Your task to perform on an android device: open device folders in google photos Image 0: 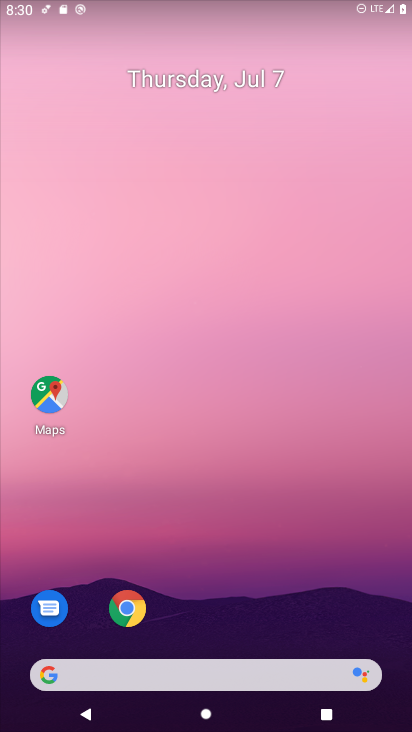
Step 0: drag from (349, 620) to (319, 168)
Your task to perform on an android device: open device folders in google photos Image 1: 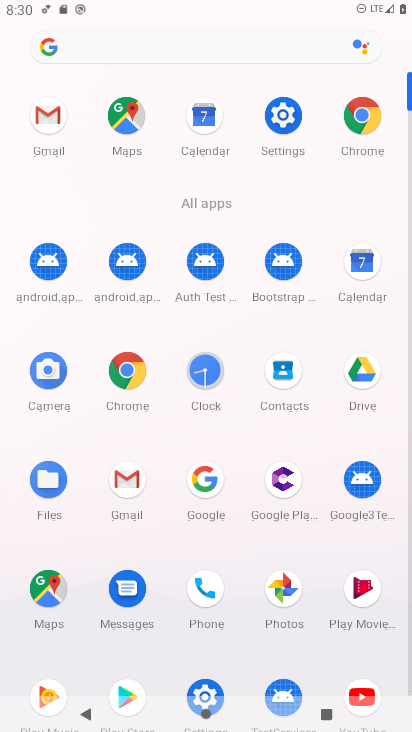
Step 1: click (283, 584)
Your task to perform on an android device: open device folders in google photos Image 2: 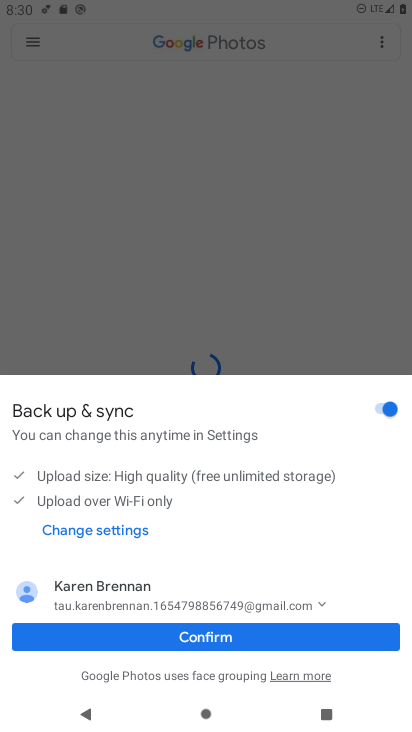
Step 2: click (201, 635)
Your task to perform on an android device: open device folders in google photos Image 3: 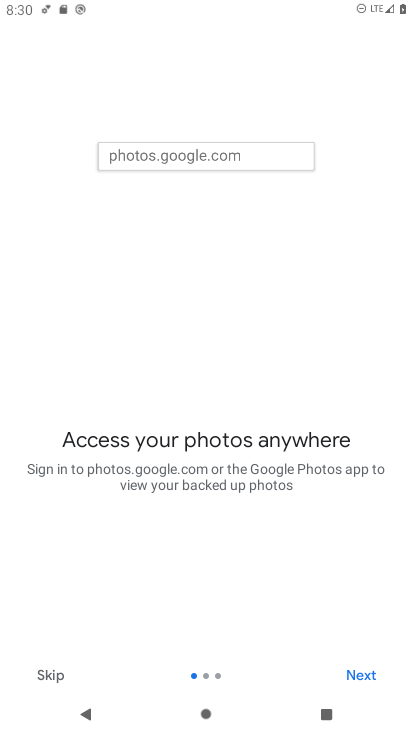
Step 3: click (46, 676)
Your task to perform on an android device: open device folders in google photos Image 4: 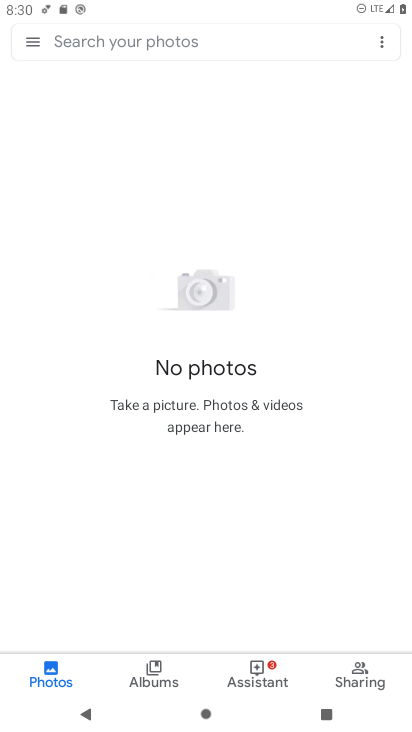
Step 4: click (37, 40)
Your task to perform on an android device: open device folders in google photos Image 5: 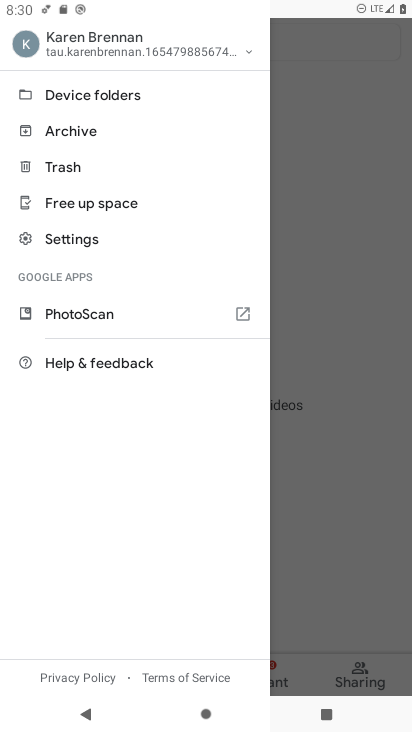
Step 5: click (68, 95)
Your task to perform on an android device: open device folders in google photos Image 6: 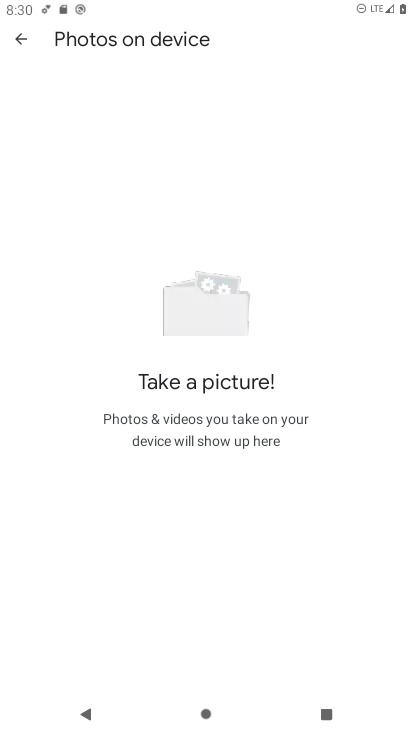
Step 6: task complete